Your task to perform on an android device: delete a single message in the gmail app Image 0: 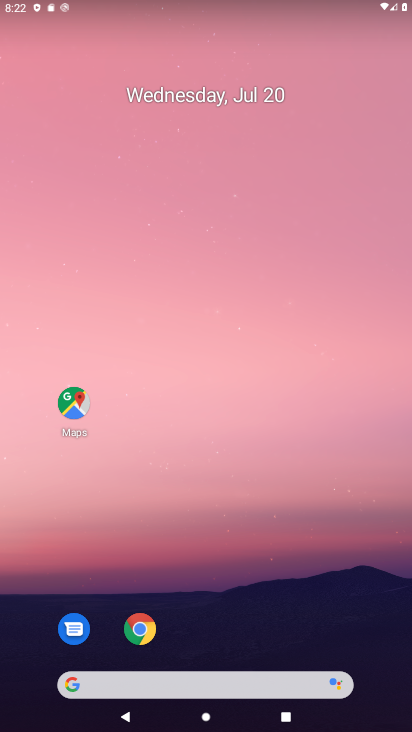
Step 0: drag from (268, 598) to (225, 86)
Your task to perform on an android device: delete a single message in the gmail app Image 1: 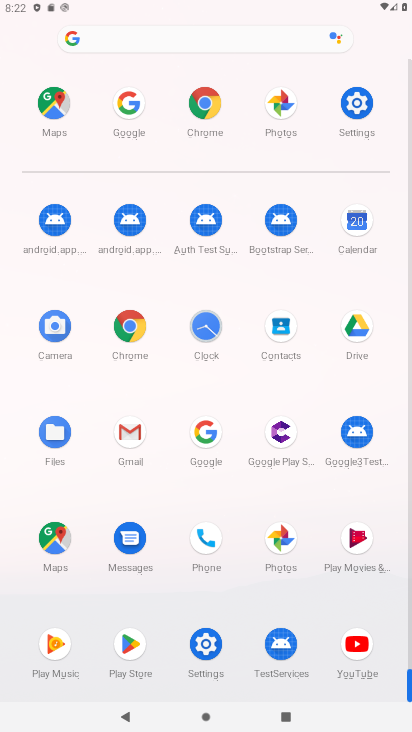
Step 1: click (121, 425)
Your task to perform on an android device: delete a single message in the gmail app Image 2: 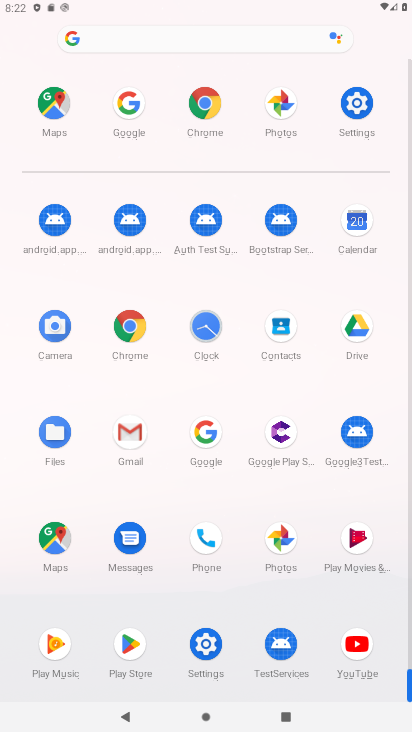
Step 2: click (121, 425)
Your task to perform on an android device: delete a single message in the gmail app Image 3: 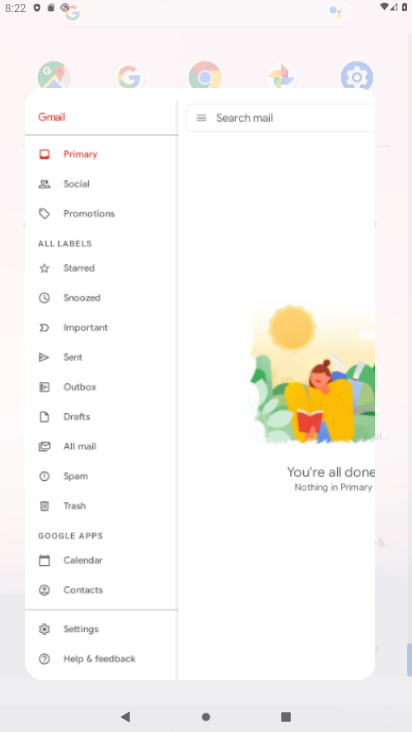
Step 3: click (125, 423)
Your task to perform on an android device: delete a single message in the gmail app Image 4: 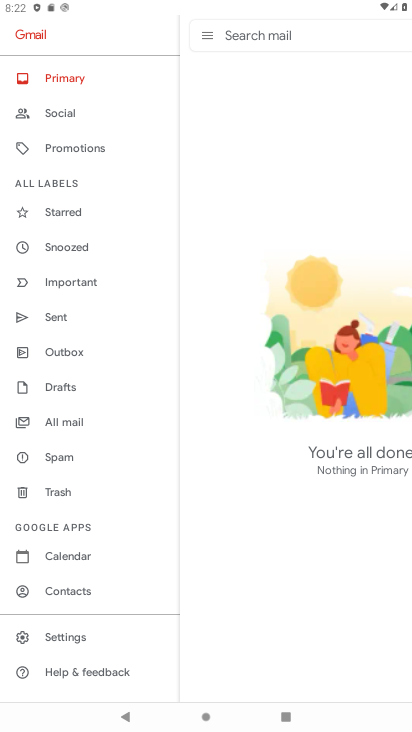
Step 4: click (59, 414)
Your task to perform on an android device: delete a single message in the gmail app Image 5: 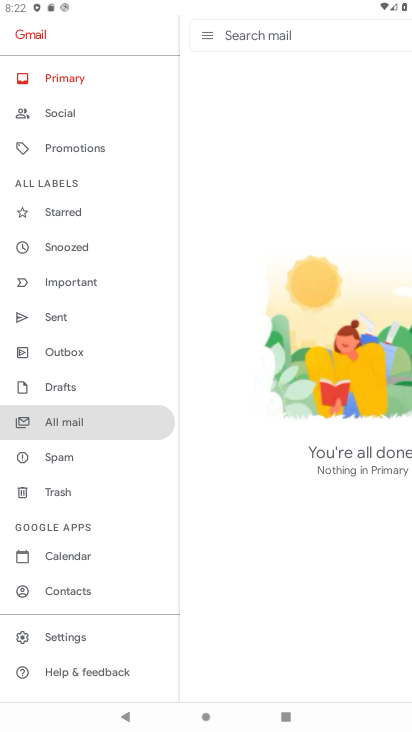
Step 5: click (62, 416)
Your task to perform on an android device: delete a single message in the gmail app Image 6: 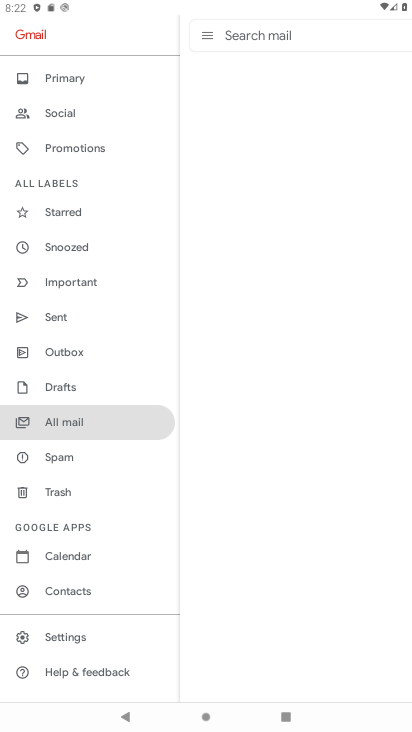
Step 6: click (67, 413)
Your task to perform on an android device: delete a single message in the gmail app Image 7: 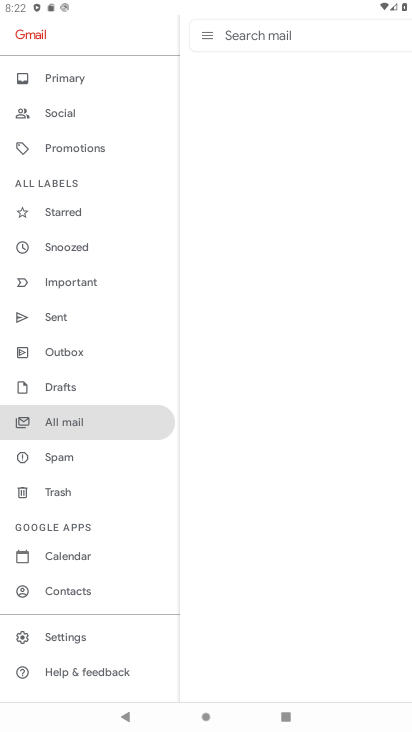
Step 7: click (70, 409)
Your task to perform on an android device: delete a single message in the gmail app Image 8: 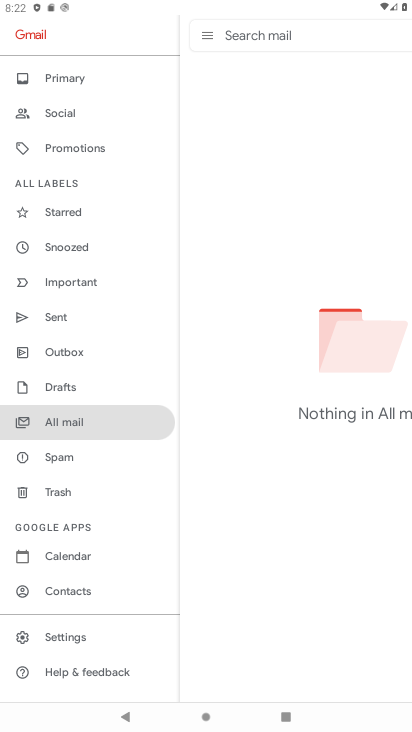
Step 8: task complete